Your task to perform on an android device: Go to accessibility settings Image 0: 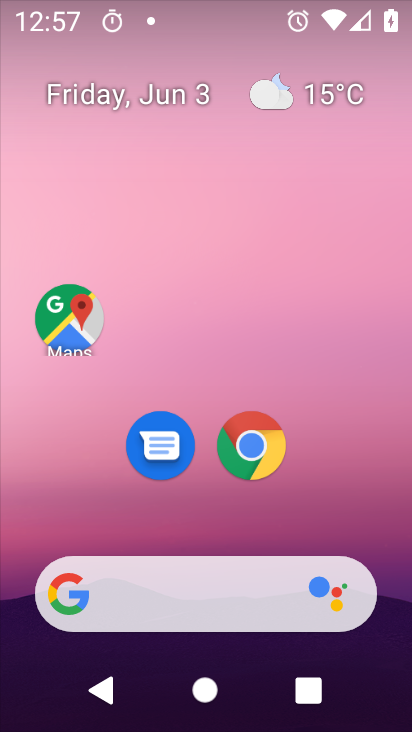
Step 0: drag from (217, 544) to (242, 176)
Your task to perform on an android device: Go to accessibility settings Image 1: 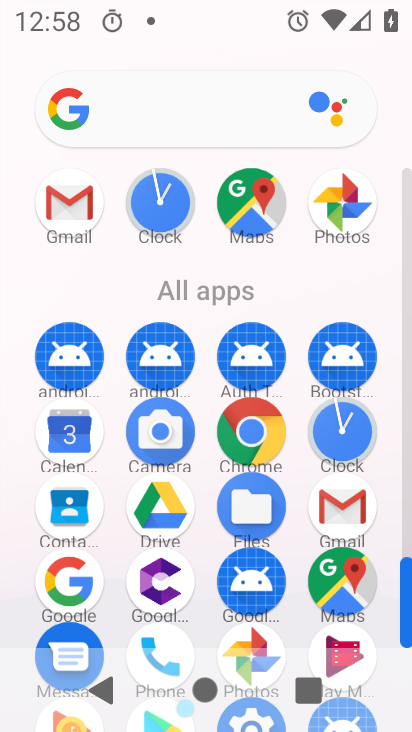
Step 1: drag from (171, 519) to (213, 26)
Your task to perform on an android device: Go to accessibility settings Image 2: 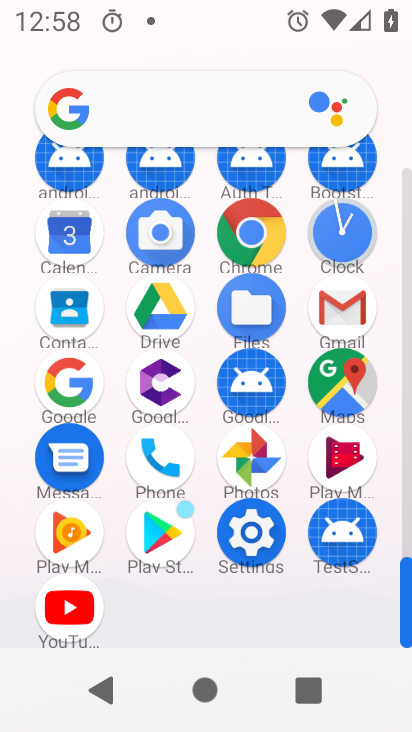
Step 2: click (259, 543)
Your task to perform on an android device: Go to accessibility settings Image 3: 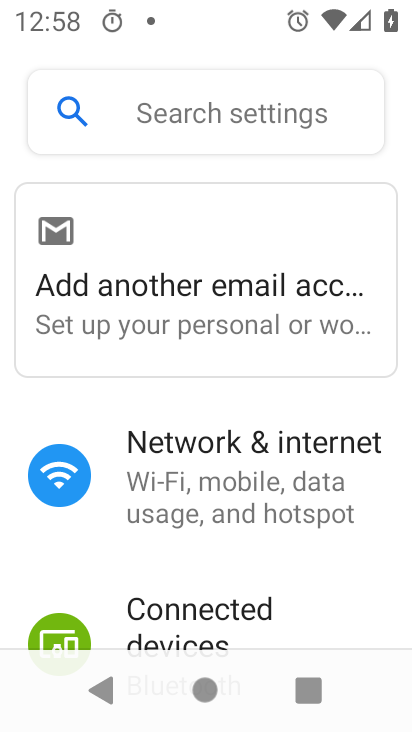
Step 3: drag from (157, 634) to (228, 22)
Your task to perform on an android device: Go to accessibility settings Image 4: 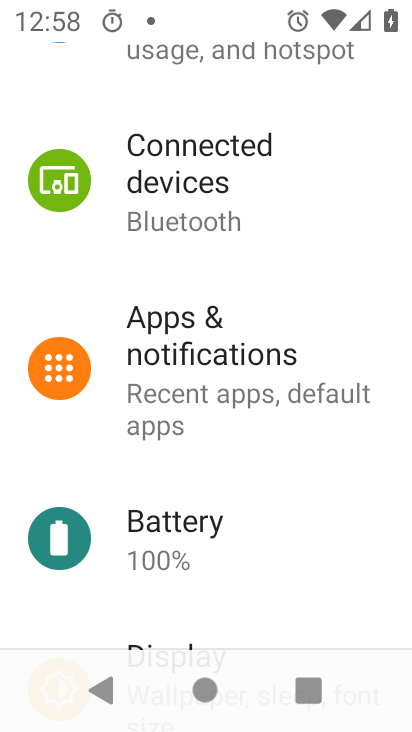
Step 4: drag from (25, 607) to (169, 107)
Your task to perform on an android device: Go to accessibility settings Image 5: 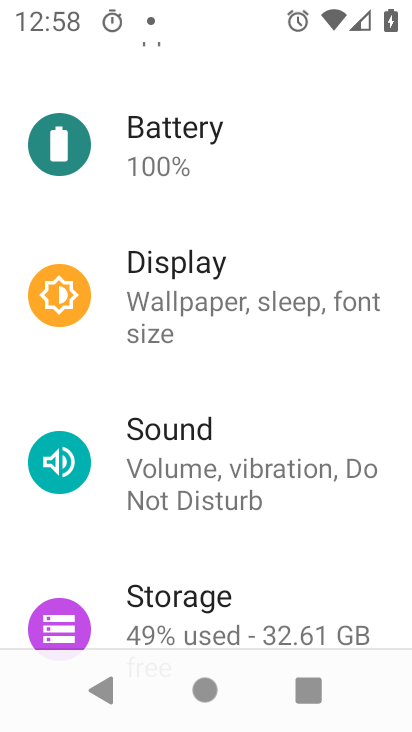
Step 5: drag from (97, 569) to (144, 114)
Your task to perform on an android device: Go to accessibility settings Image 6: 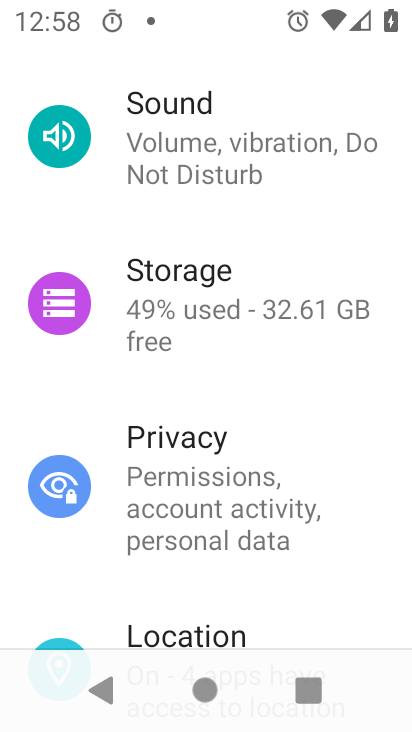
Step 6: drag from (106, 569) to (190, 50)
Your task to perform on an android device: Go to accessibility settings Image 7: 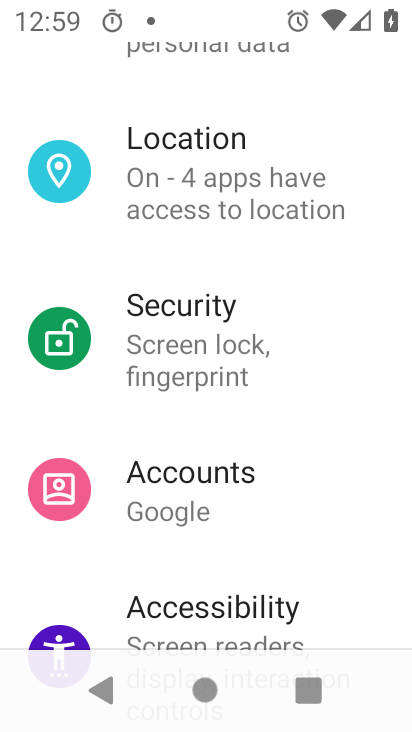
Step 7: click (212, 620)
Your task to perform on an android device: Go to accessibility settings Image 8: 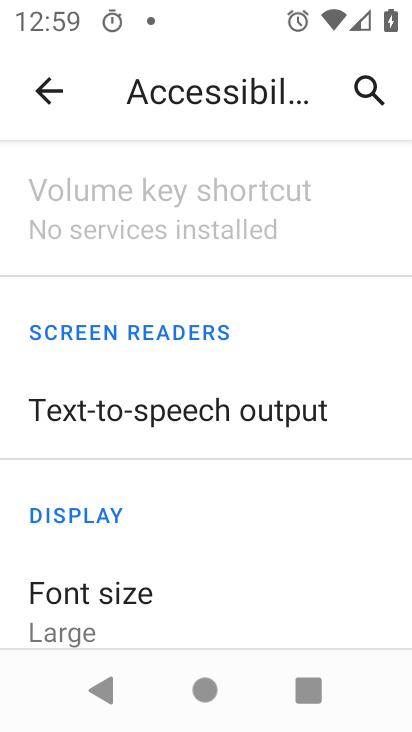
Step 8: task complete